Your task to perform on an android device: Open settings on Google Maps Image 0: 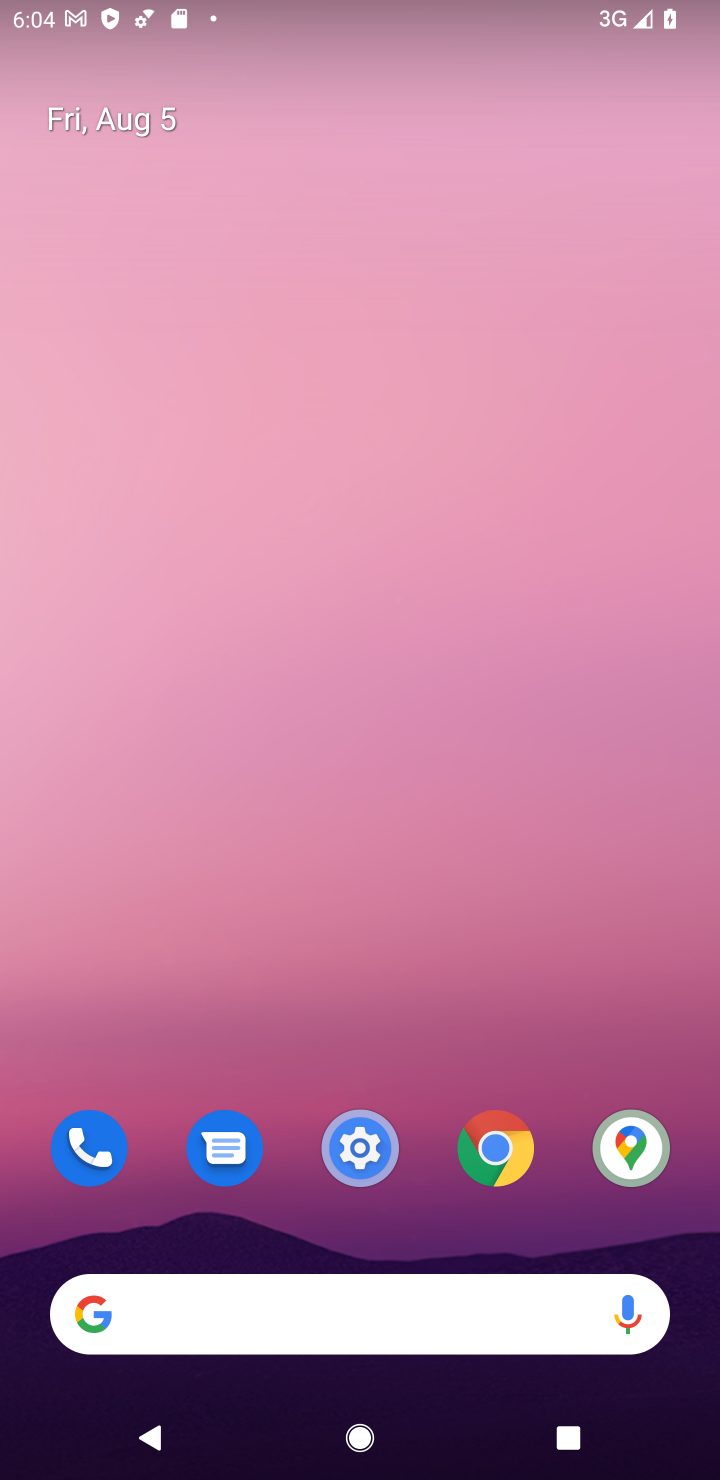
Step 0: click (633, 1148)
Your task to perform on an android device: Open settings on Google Maps Image 1: 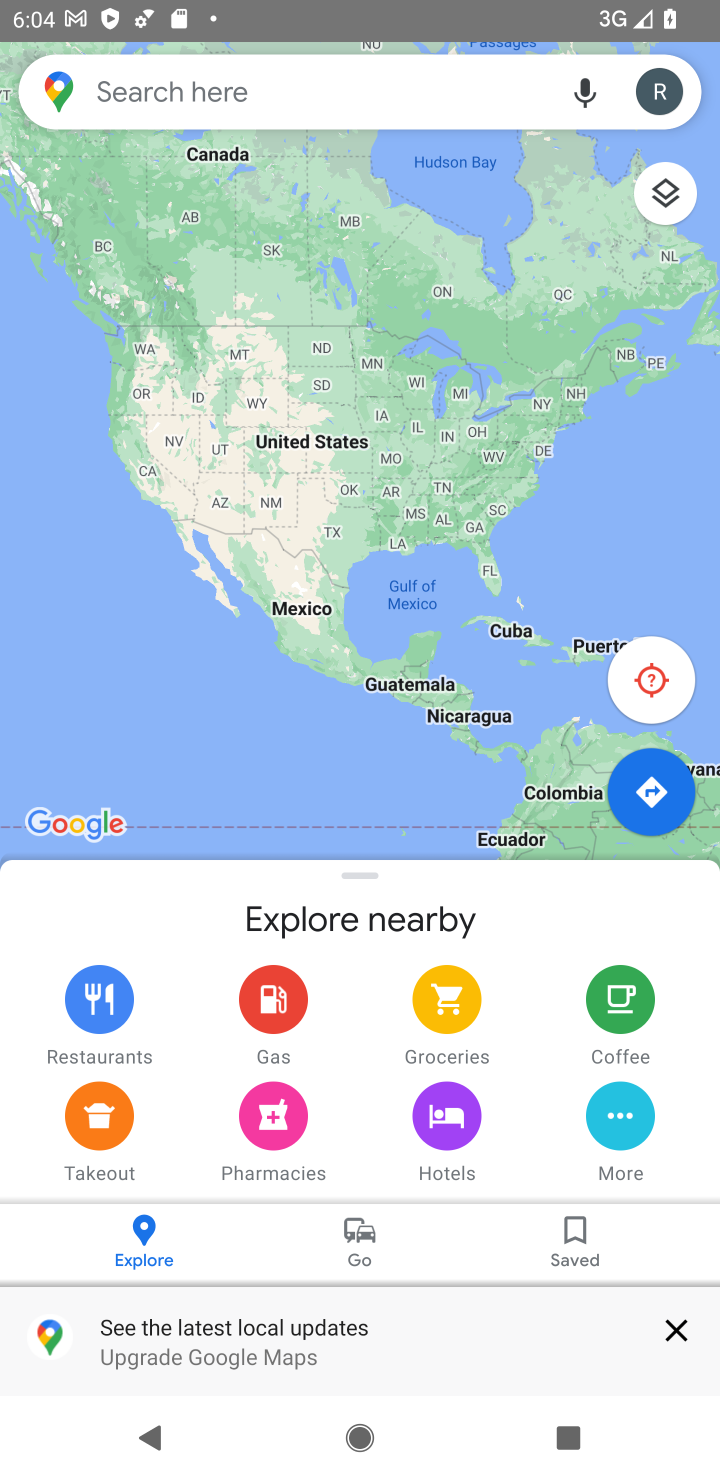
Step 1: click (676, 1328)
Your task to perform on an android device: Open settings on Google Maps Image 2: 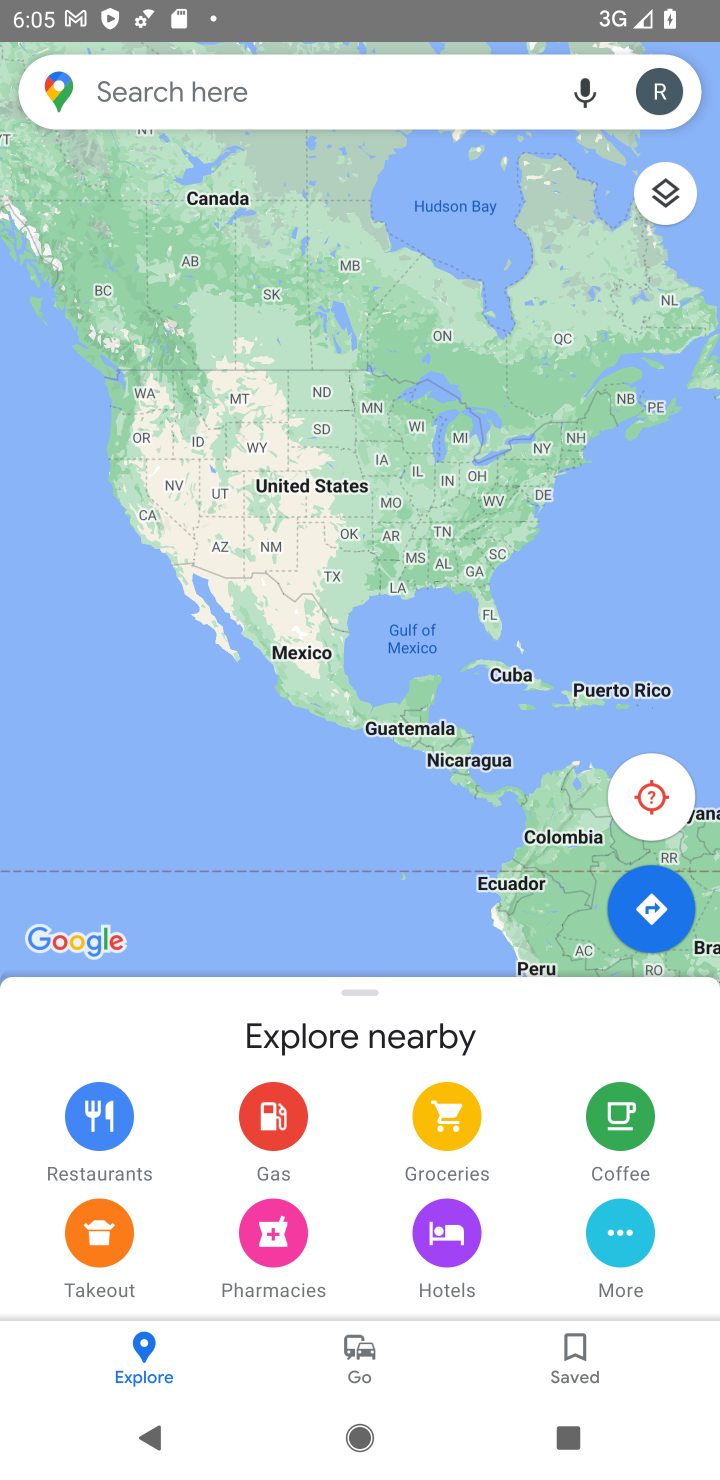
Step 2: click (647, 88)
Your task to perform on an android device: Open settings on Google Maps Image 3: 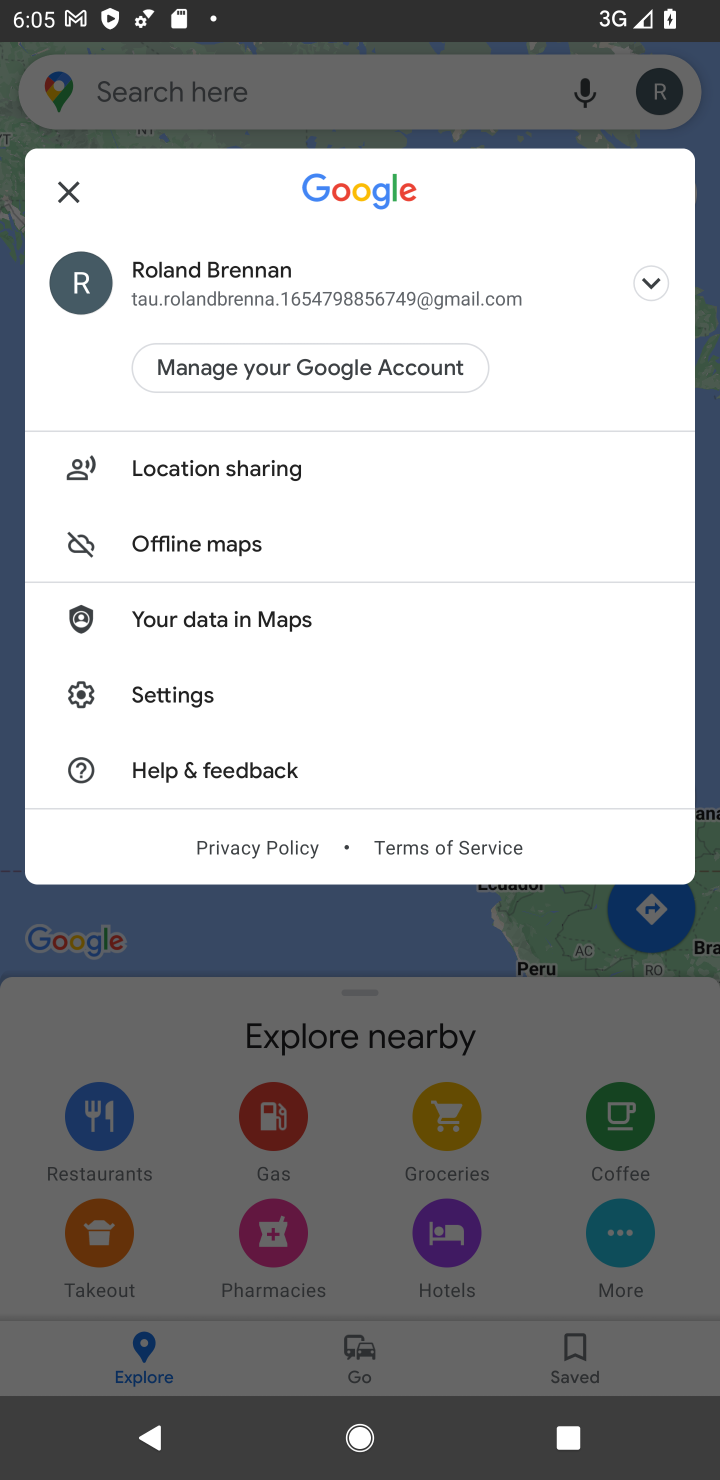
Step 3: click (163, 681)
Your task to perform on an android device: Open settings on Google Maps Image 4: 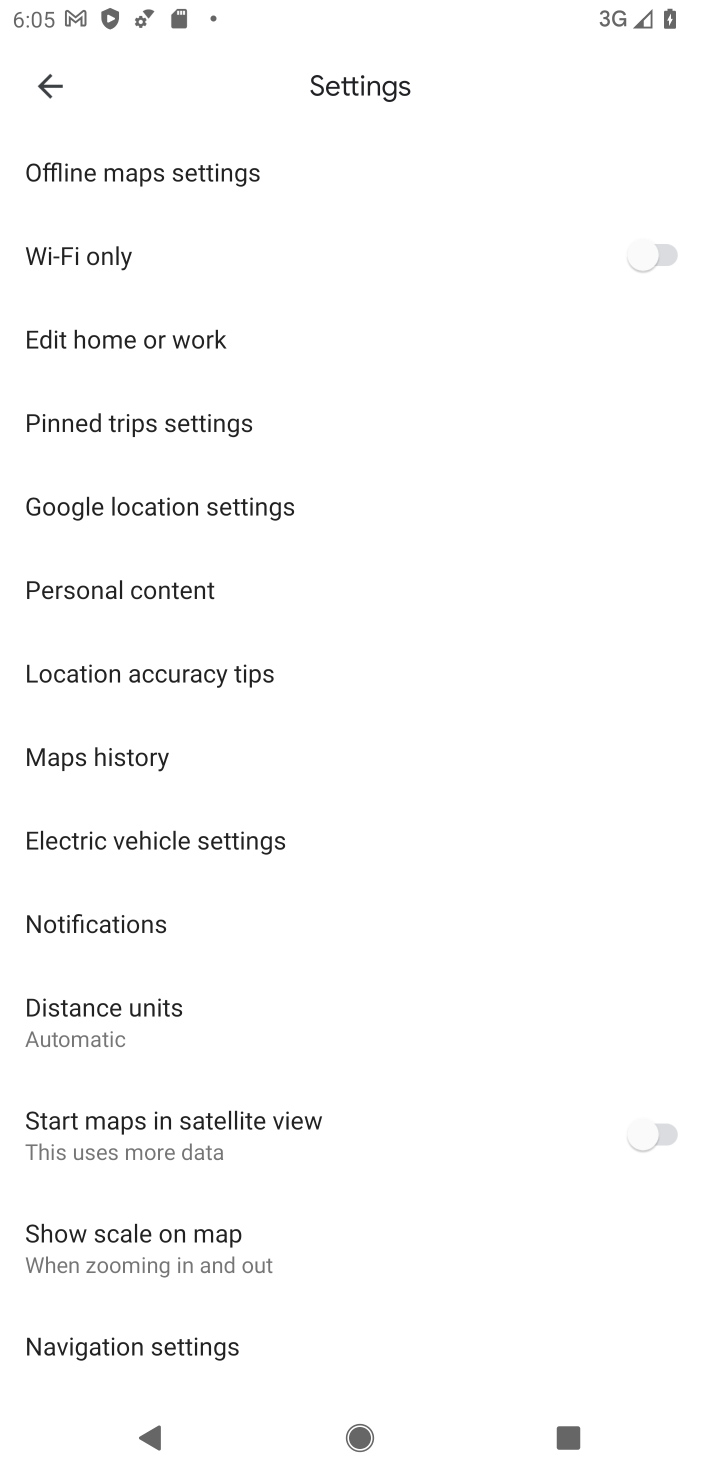
Step 4: task complete